Your task to perform on an android device: make emails show in primary in the gmail app Image 0: 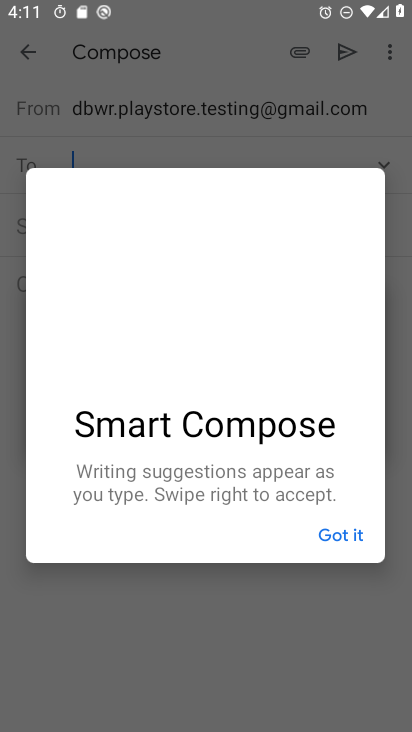
Step 0: press home button
Your task to perform on an android device: make emails show in primary in the gmail app Image 1: 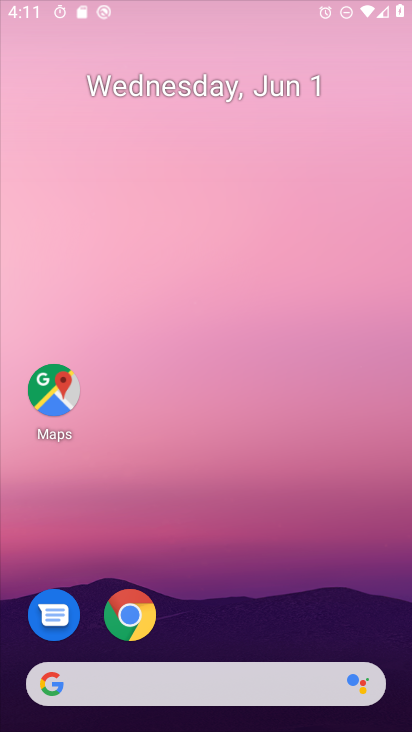
Step 1: drag from (291, 713) to (340, 9)
Your task to perform on an android device: make emails show in primary in the gmail app Image 2: 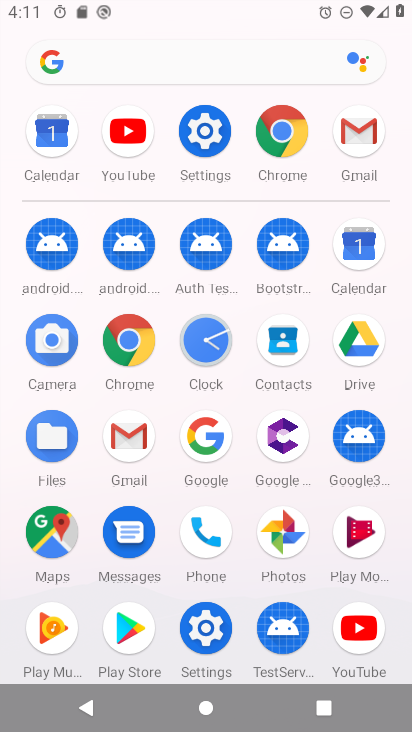
Step 2: click (147, 436)
Your task to perform on an android device: make emails show in primary in the gmail app Image 3: 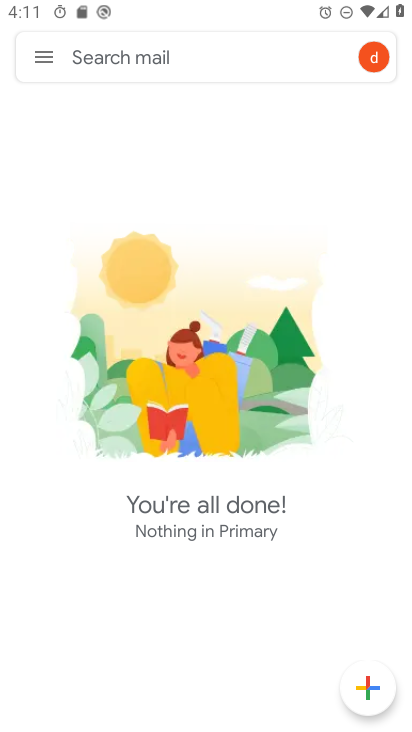
Step 3: click (33, 47)
Your task to perform on an android device: make emails show in primary in the gmail app Image 4: 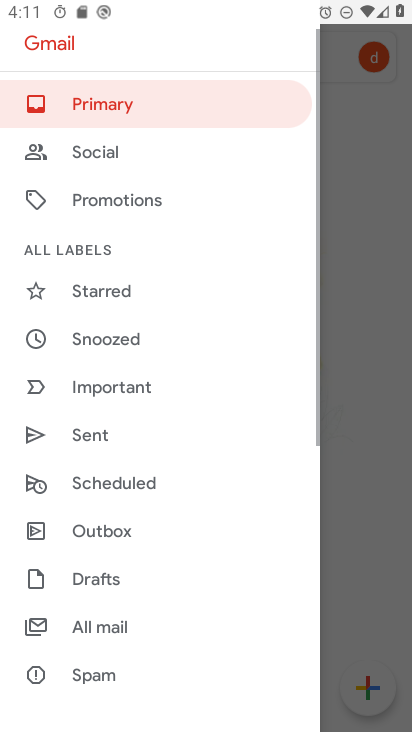
Step 4: drag from (158, 637) to (150, 63)
Your task to perform on an android device: make emails show in primary in the gmail app Image 5: 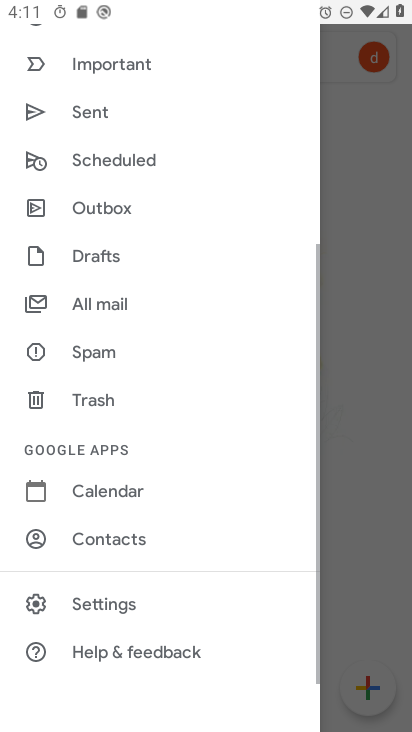
Step 5: click (100, 612)
Your task to perform on an android device: make emails show in primary in the gmail app Image 6: 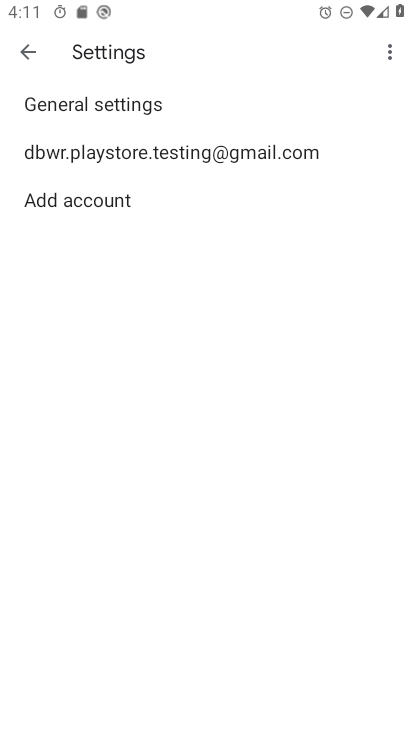
Step 6: press back button
Your task to perform on an android device: make emails show in primary in the gmail app Image 7: 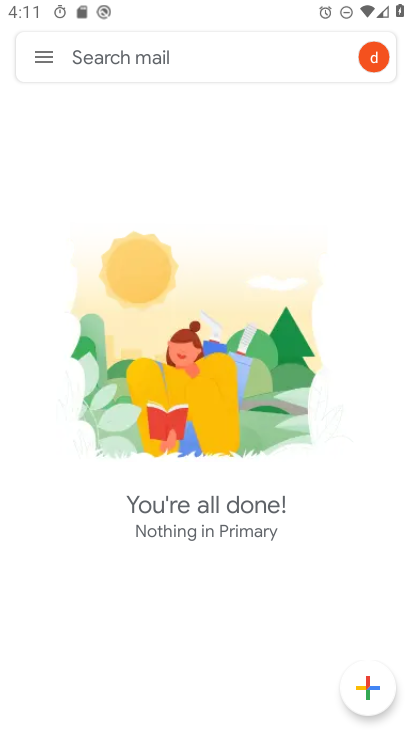
Step 7: click (37, 50)
Your task to perform on an android device: make emails show in primary in the gmail app Image 8: 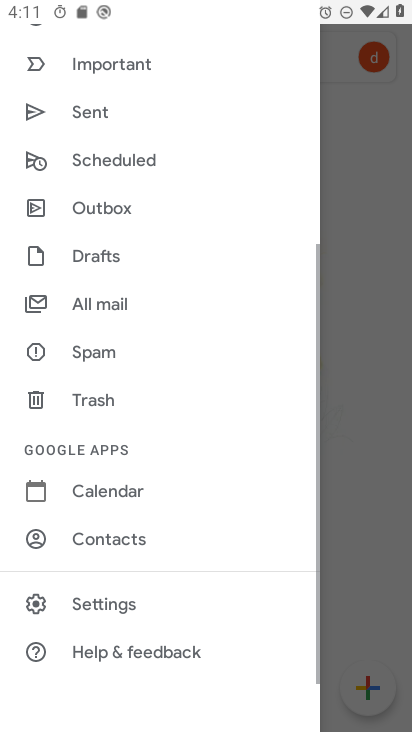
Step 8: task complete